Your task to perform on an android device: Find coffee shops on Maps Image 0: 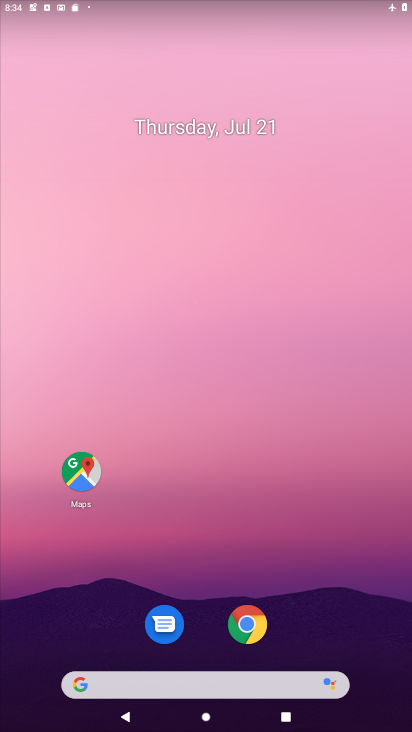
Step 0: click (47, 477)
Your task to perform on an android device: Find coffee shops on Maps Image 1: 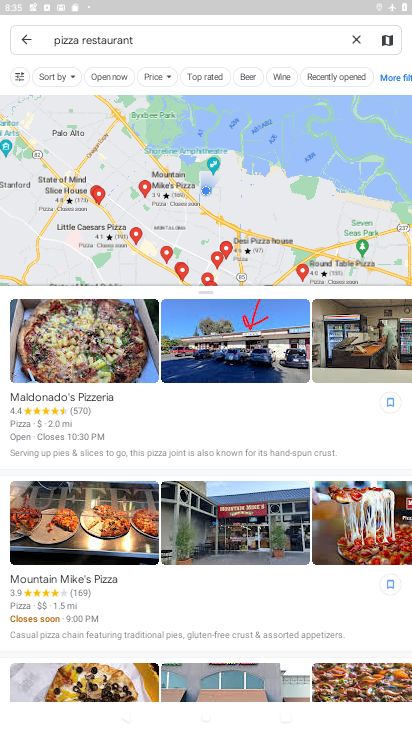
Step 1: click (358, 38)
Your task to perform on an android device: Find coffee shops on Maps Image 2: 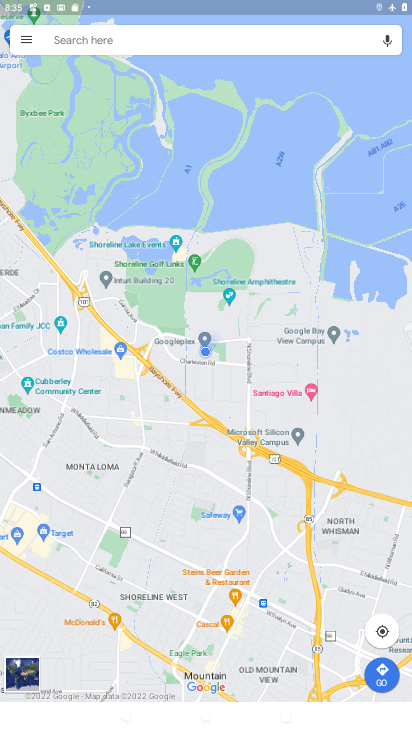
Step 2: click (185, 27)
Your task to perform on an android device: Find coffee shops on Maps Image 3: 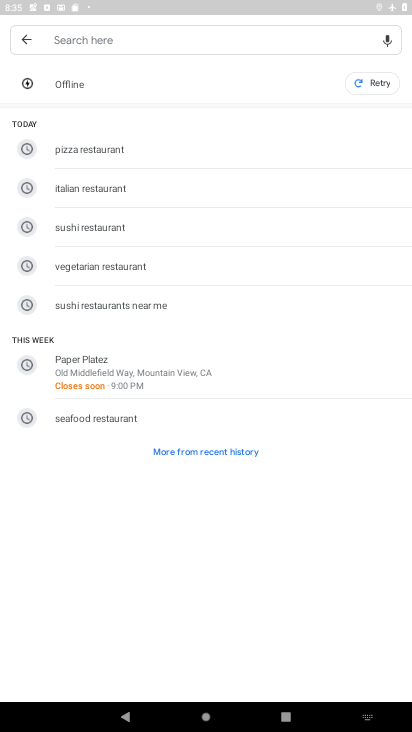
Step 3: type "coffee shops"
Your task to perform on an android device: Find coffee shops on Maps Image 4: 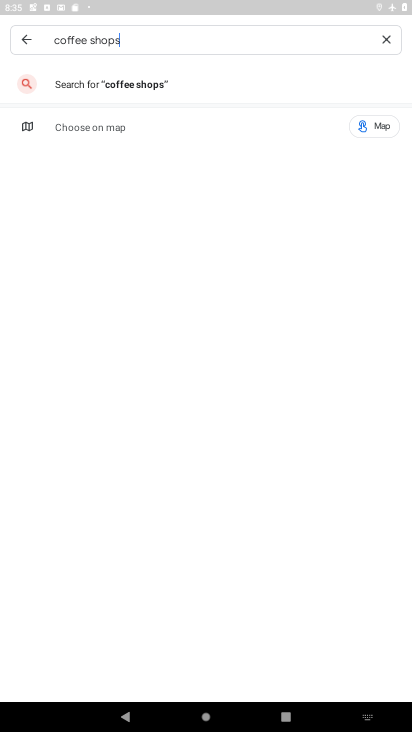
Step 4: type ""
Your task to perform on an android device: Find coffee shops on Maps Image 5: 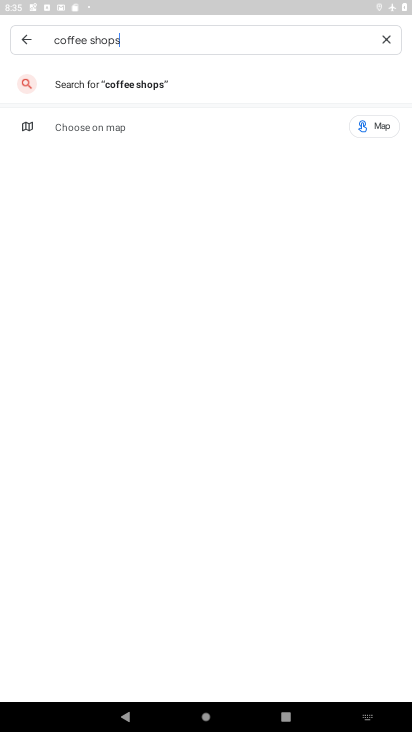
Step 5: click (166, 84)
Your task to perform on an android device: Find coffee shops on Maps Image 6: 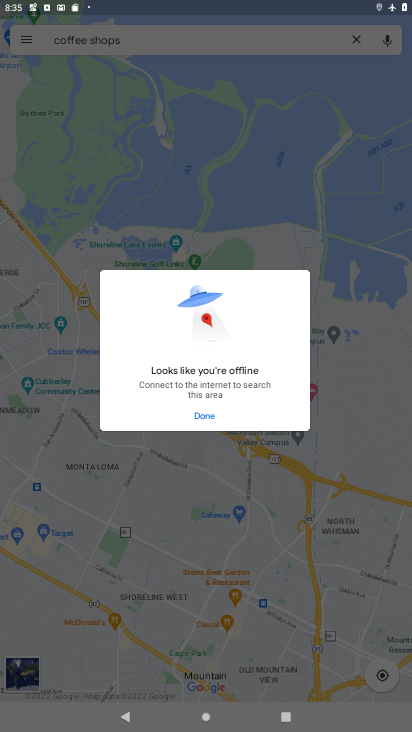
Step 6: drag from (372, 6) to (297, 457)
Your task to perform on an android device: Find coffee shops on Maps Image 7: 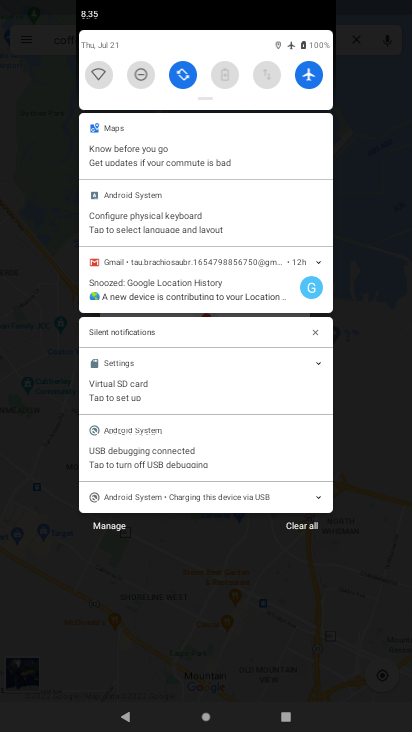
Step 7: click (308, 82)
Your task to perform on an android device: Find coffee shops on Maps Image 8: 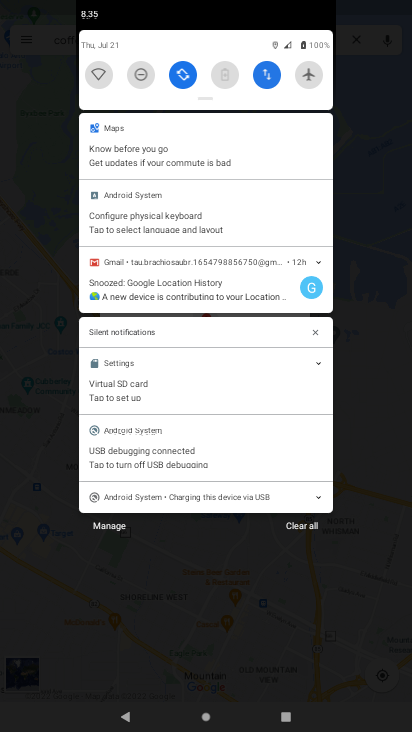
Step 8: task complete